Your task to perform on an android device: change your default location settings in chrome Image 0: 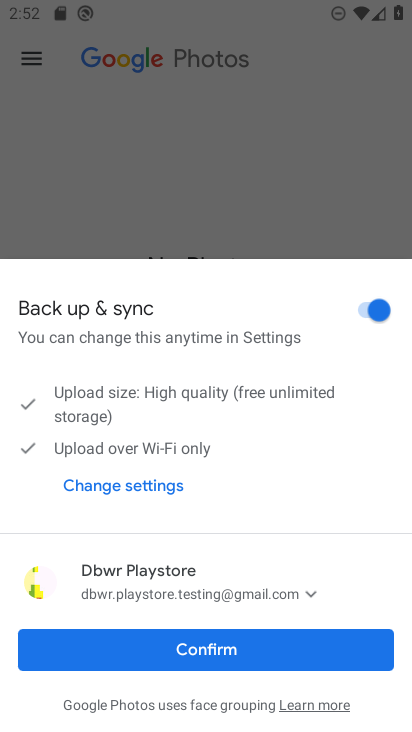
Step 0: press home button
Your task to perform on an android device: change your default location settings in chrome Image 1: 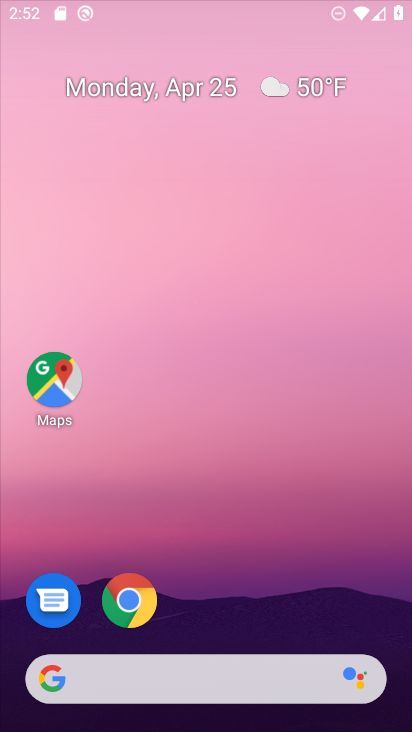
Step 1: drag from (195, 647) to (166, 3)
Your task to perform on an android device: change your default location settings in chrome Image 2: 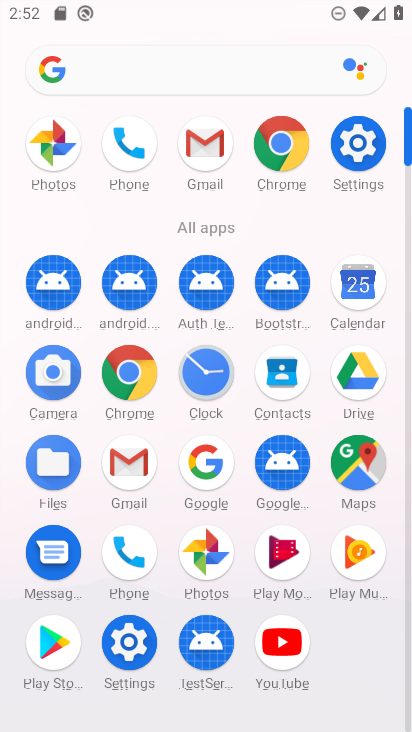
Step 2: click (123, 383)
Your task to perform on an android device: change your default location settings in chrome Image 3: 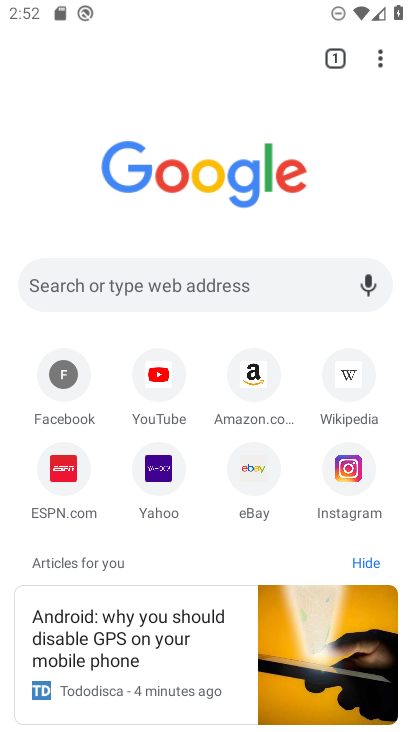
Step 3: click (381, 53)
Your task to perform on an android device: change your default location settings in chrome Image 4: 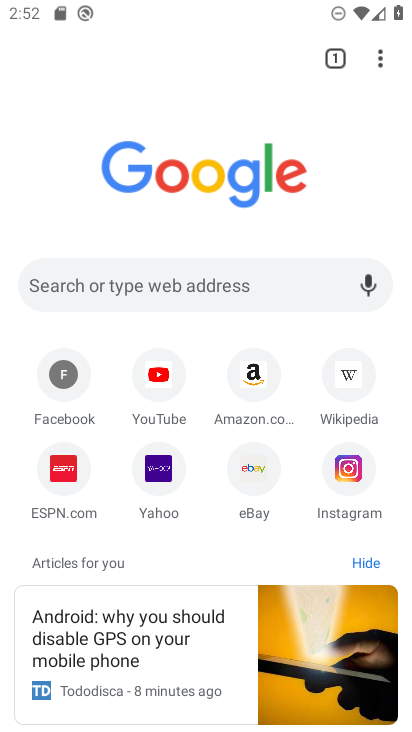
Step 4: drag from (377, 54) to (179, 558)
Your task to perform on an android device: change your default location settings in chrome Image 5: 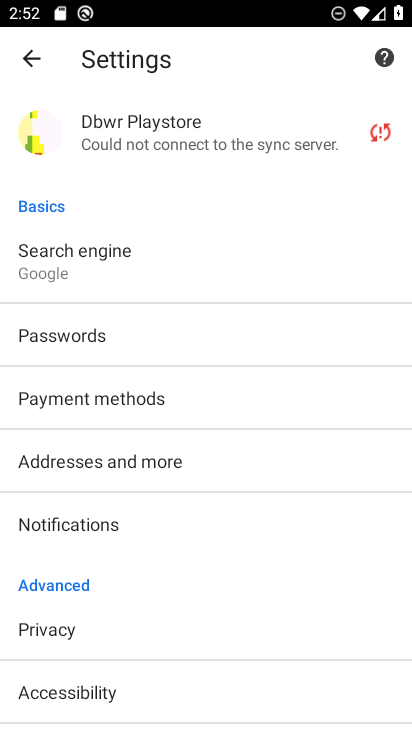
Step 5: drag from (69, 616) to (64, 237)
Your task to perform on an android device: change your default location settings in chrome Image 6: 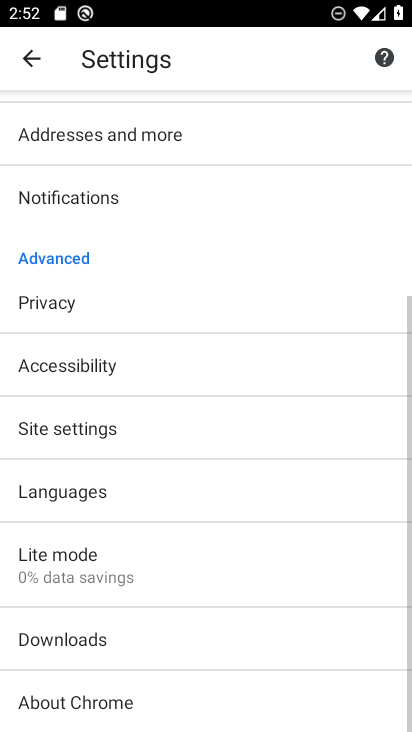
Step 6: click (80, 433)
Your task to perform on an android device: change your default location settings in chrome Image 7: 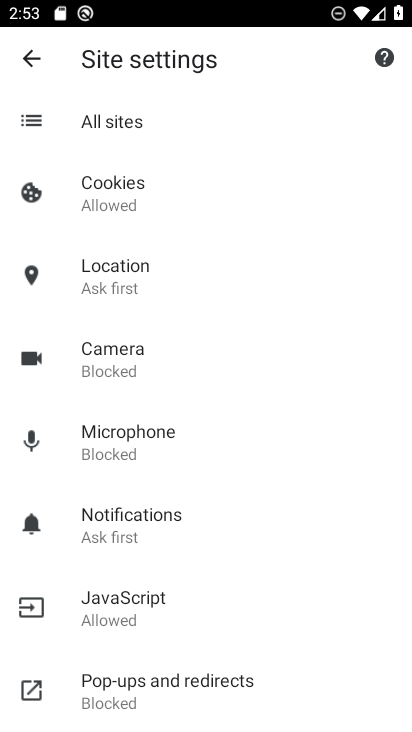
Step 7: click (134, 279)
Your task to perform on an android device: change your default location settings in chrome Image 8: 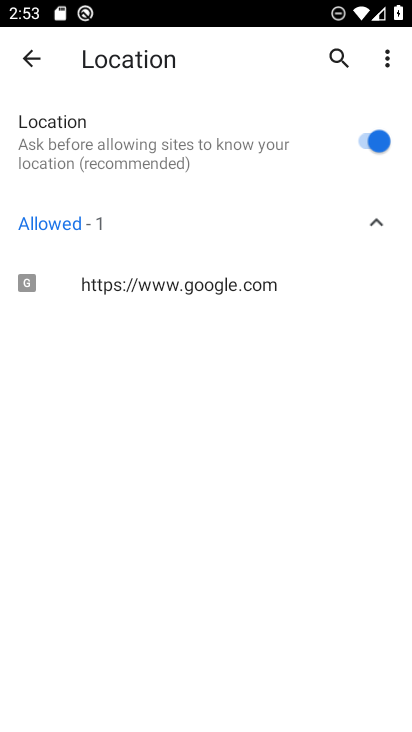
Step 8: click (362, 141)
Your task to perform on an android device: change your default location settings in chrome Image 9: 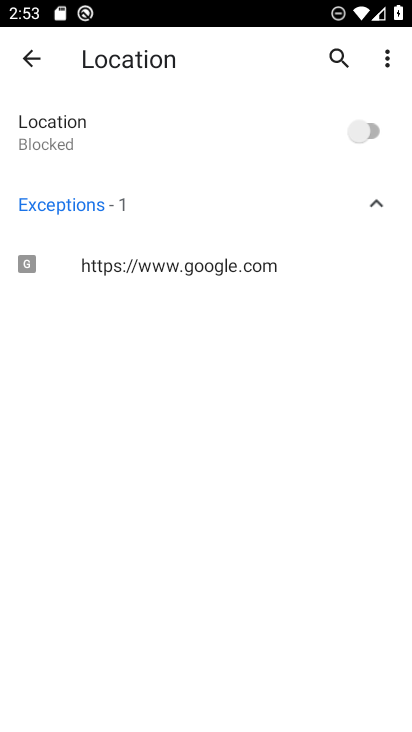
Step 9: task complete